Your task to perform on an android device: find snoozed emails in the gmail app Image 0: 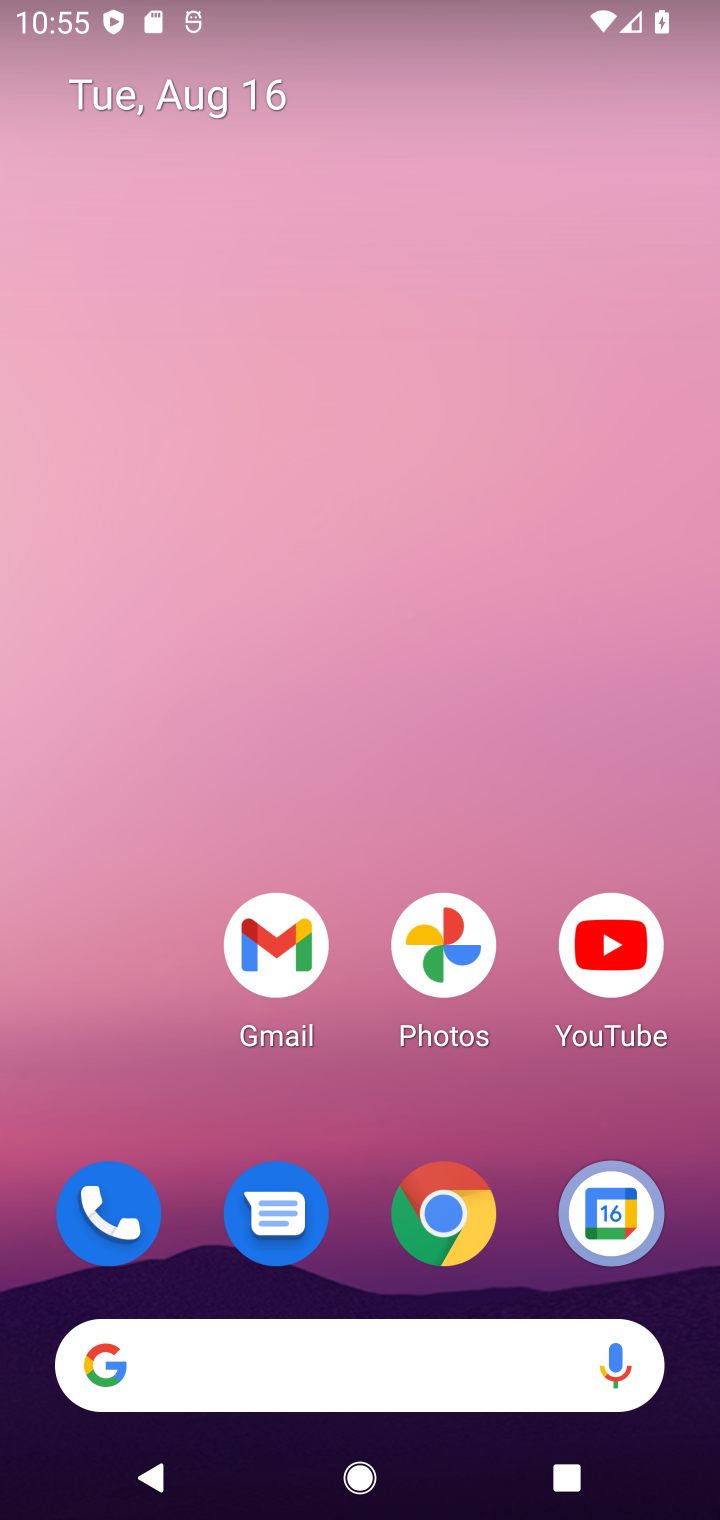
Step 0: press home button
Your task to perform on an android device: find snoozed emails in the gmail app Image 1: 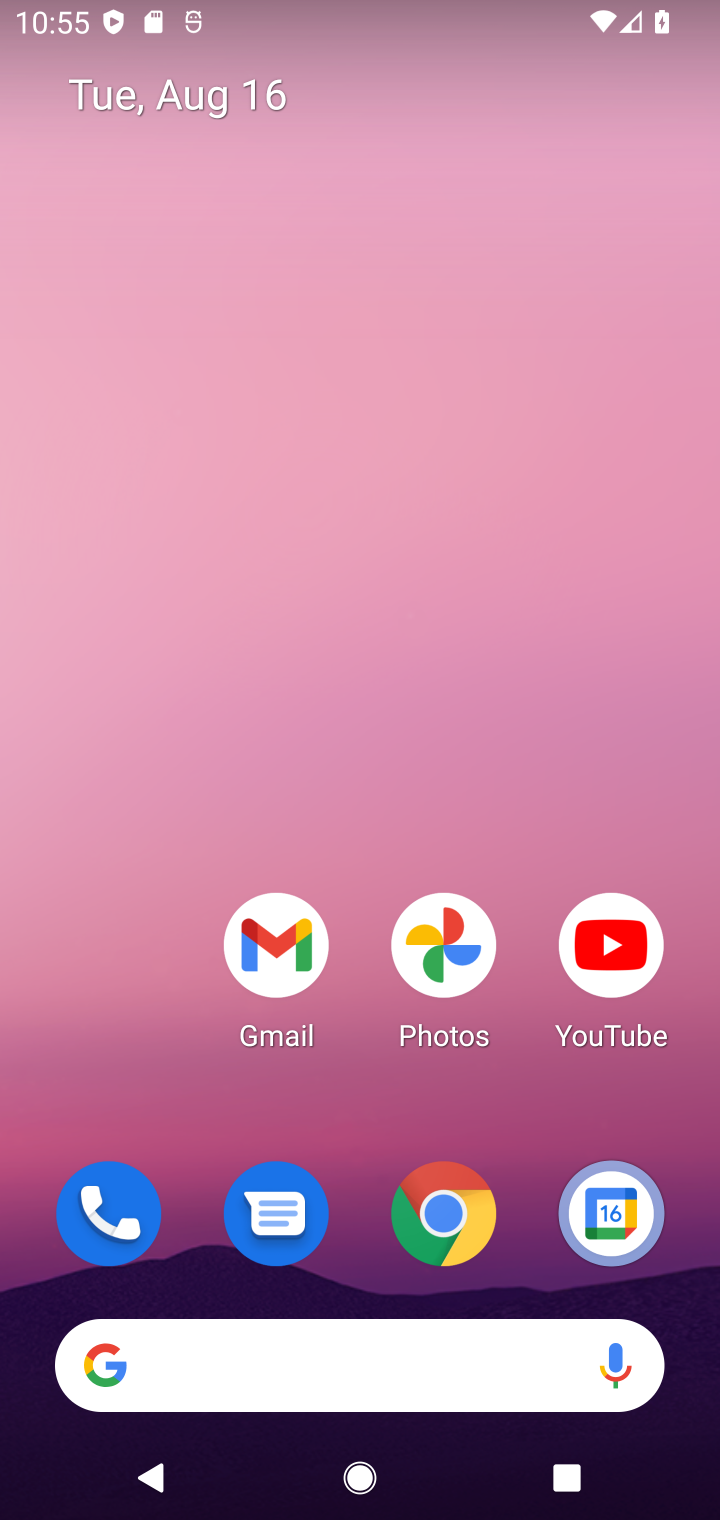
Step 1: press home button
Your task to perform on an android device: find snoozed emails in the gmail app Image 2: 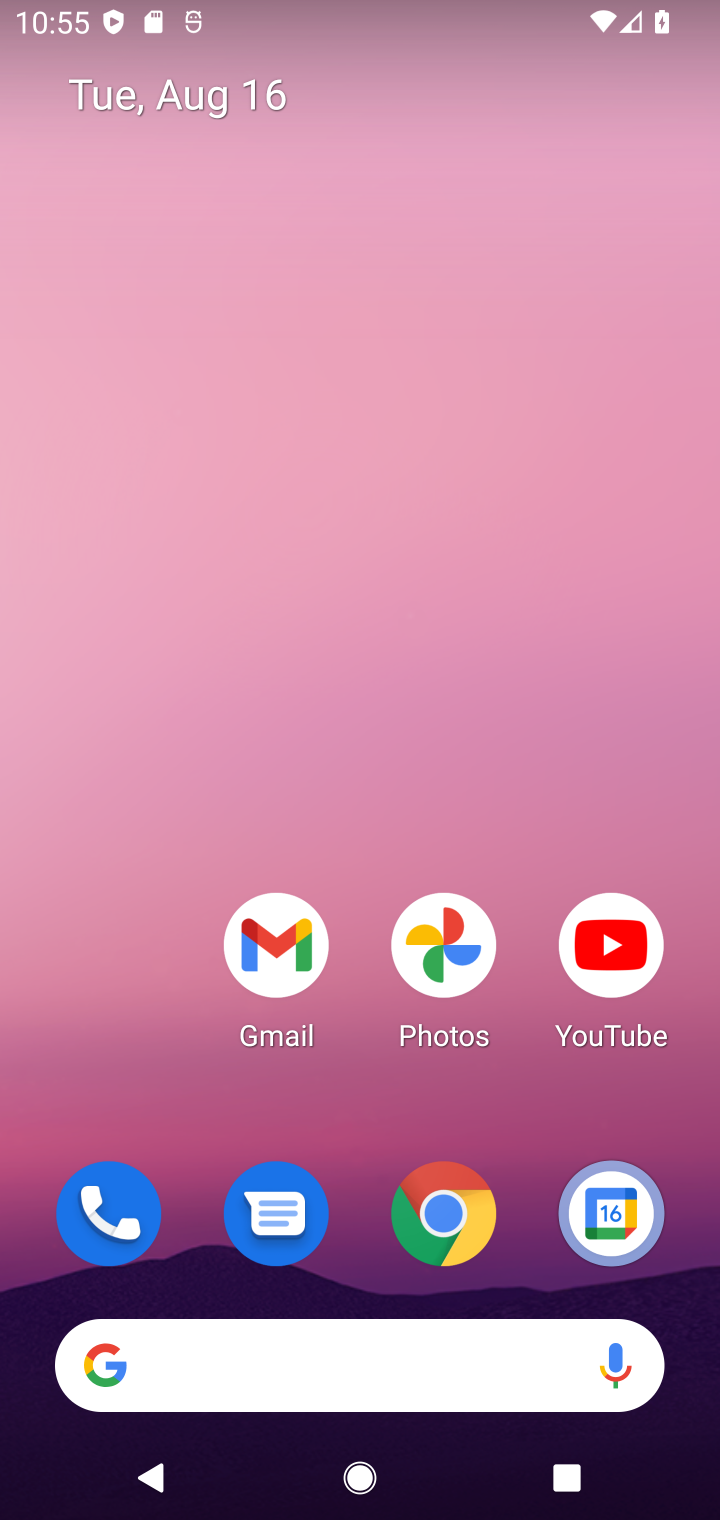
Step 2: drag from (352, 1125) to (385, 323)
Your task to perform on an android device: find snoozed emails in the gmail app Image 3: 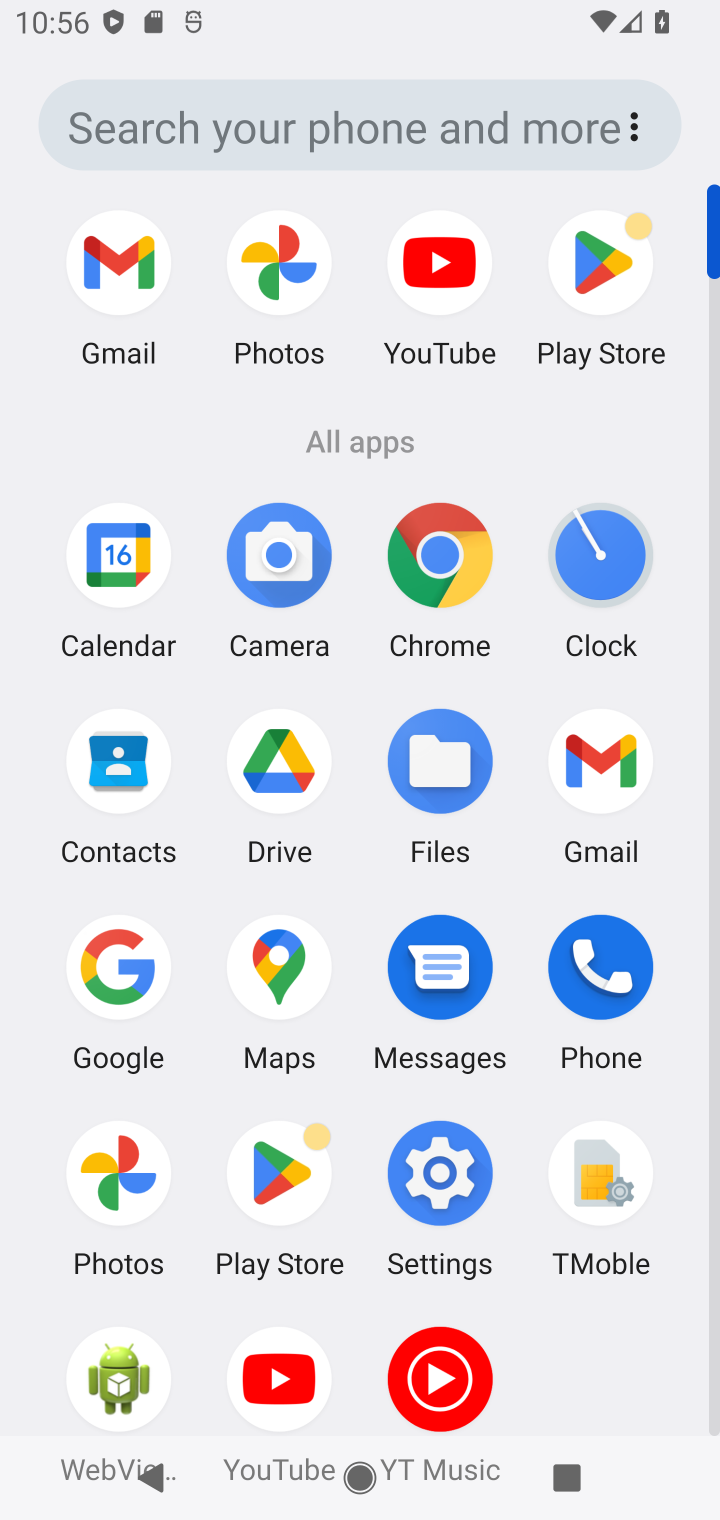
Step 3: click (606, 780)
Your task to perform on an android device: find snoozed emails in the gmail app Image 4: 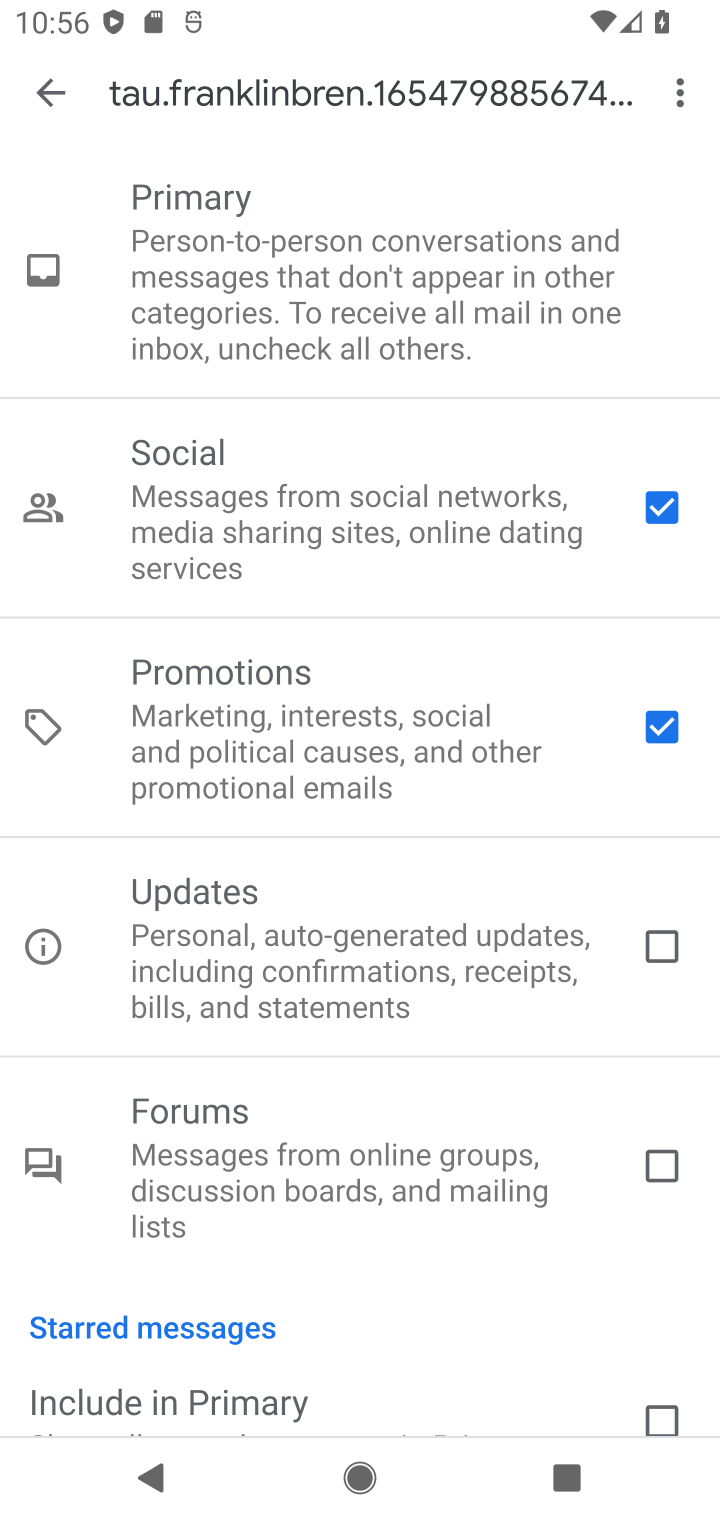
Step 4: click (61, 84)
Your task to perform on an android device: find snoozed emails in the gmail app Image 5: 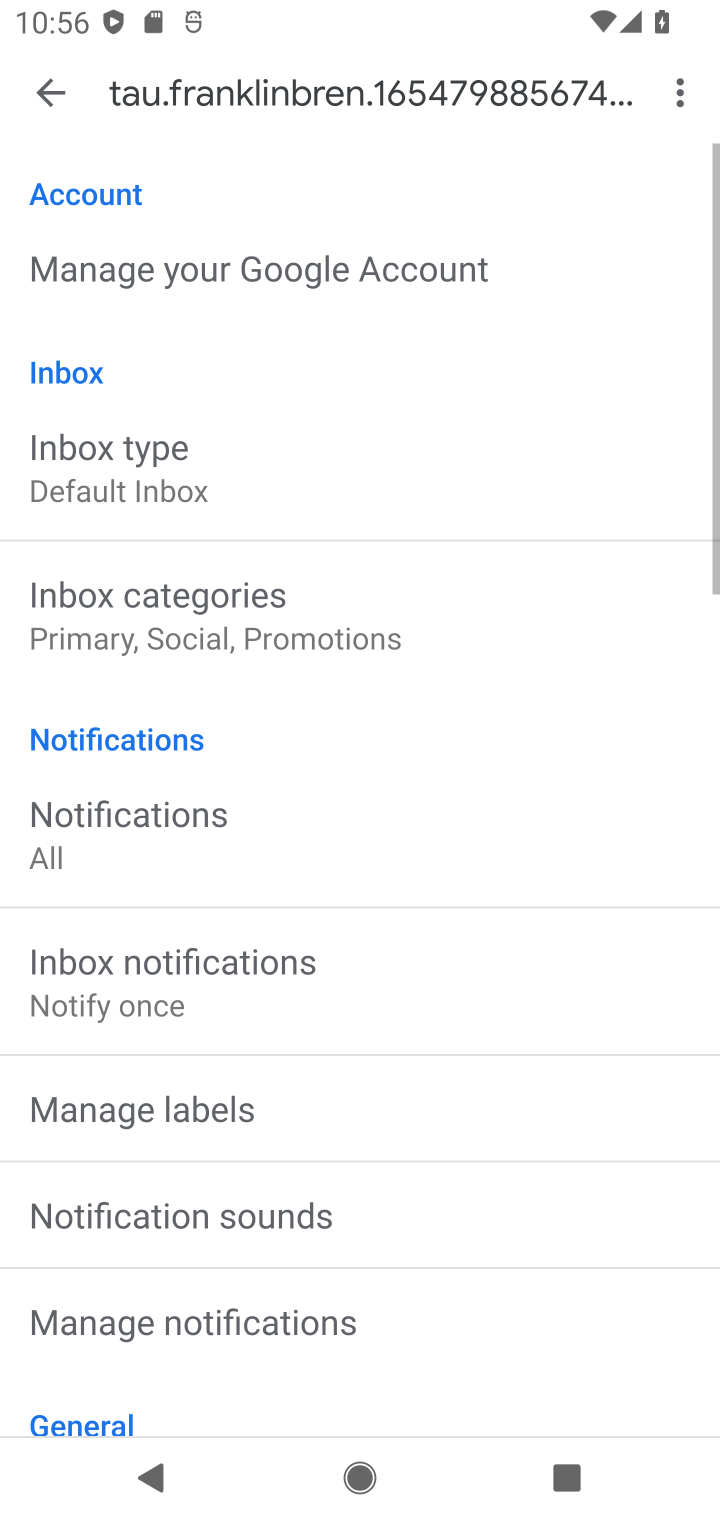
Step 5: click (61, 84)
Your task to perform on an android device: find snoozed emails in the gmail app Image 6: 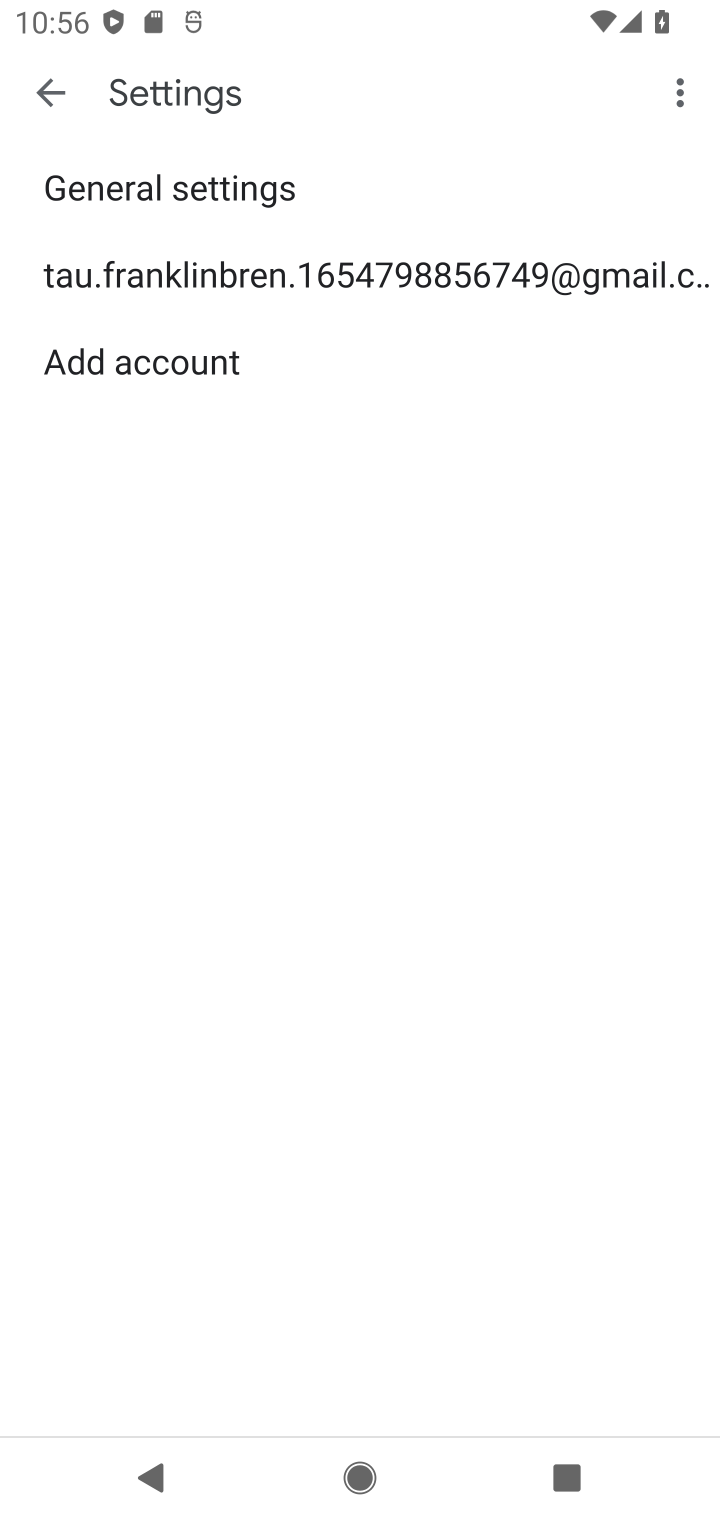
Step 6: click (61, 84)
Your task to perform on an android device: find snoozed emails in the gmail app Image 7: 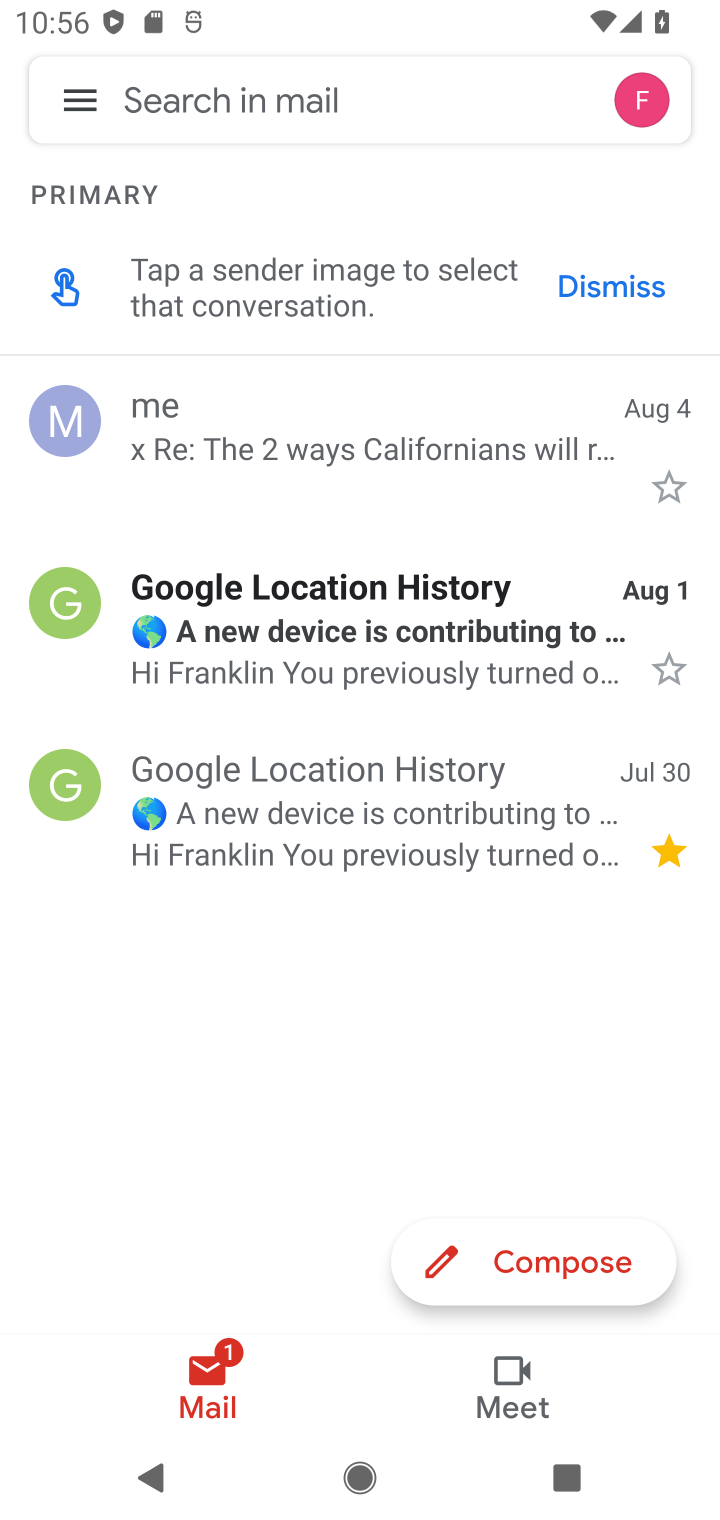
Step 7: click (86, 105)
Your task to perform on an android device: find snoozed emails in the gmail app Image 8: 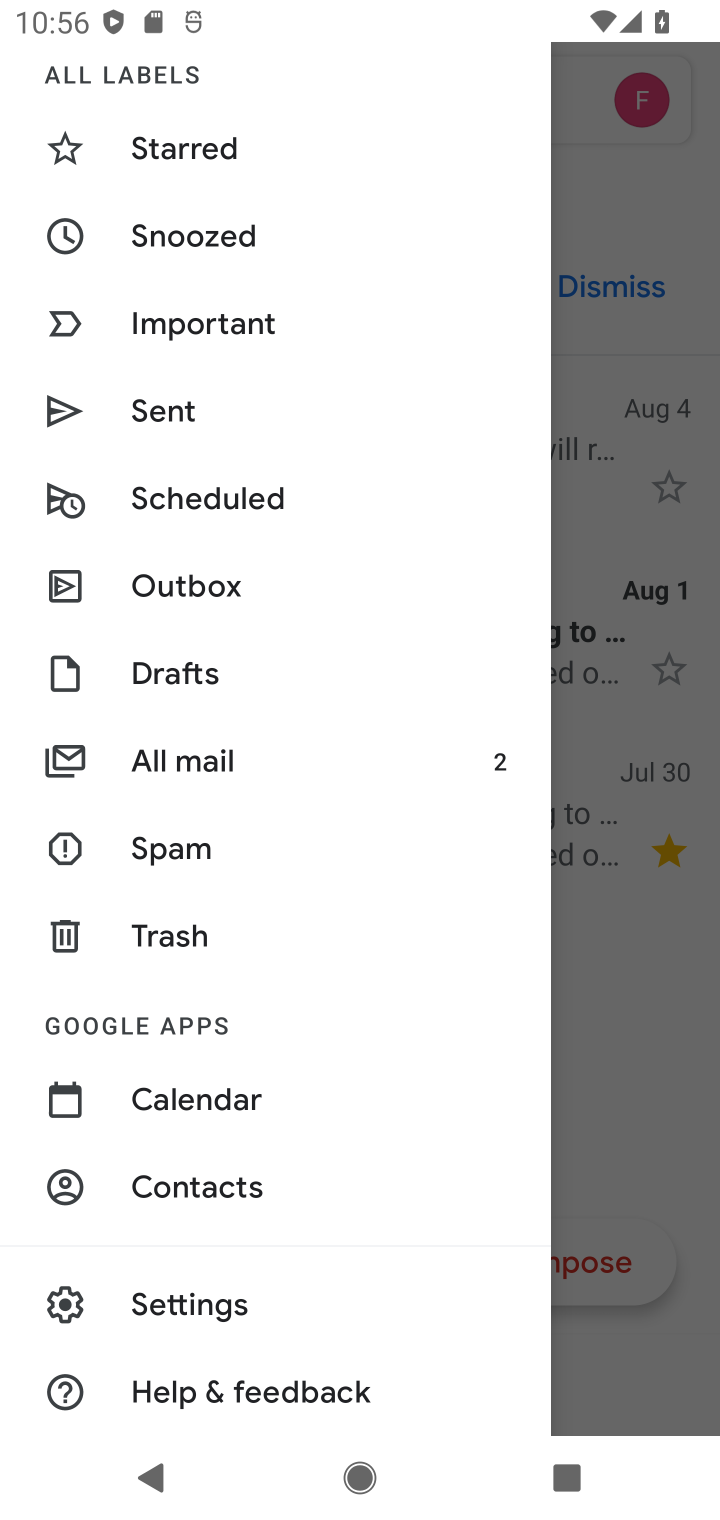
Step 8: drag from (216, 425) to (123, 1083)
Your task to perform on an android device: find snoozed emails in the gmail app Image 9: 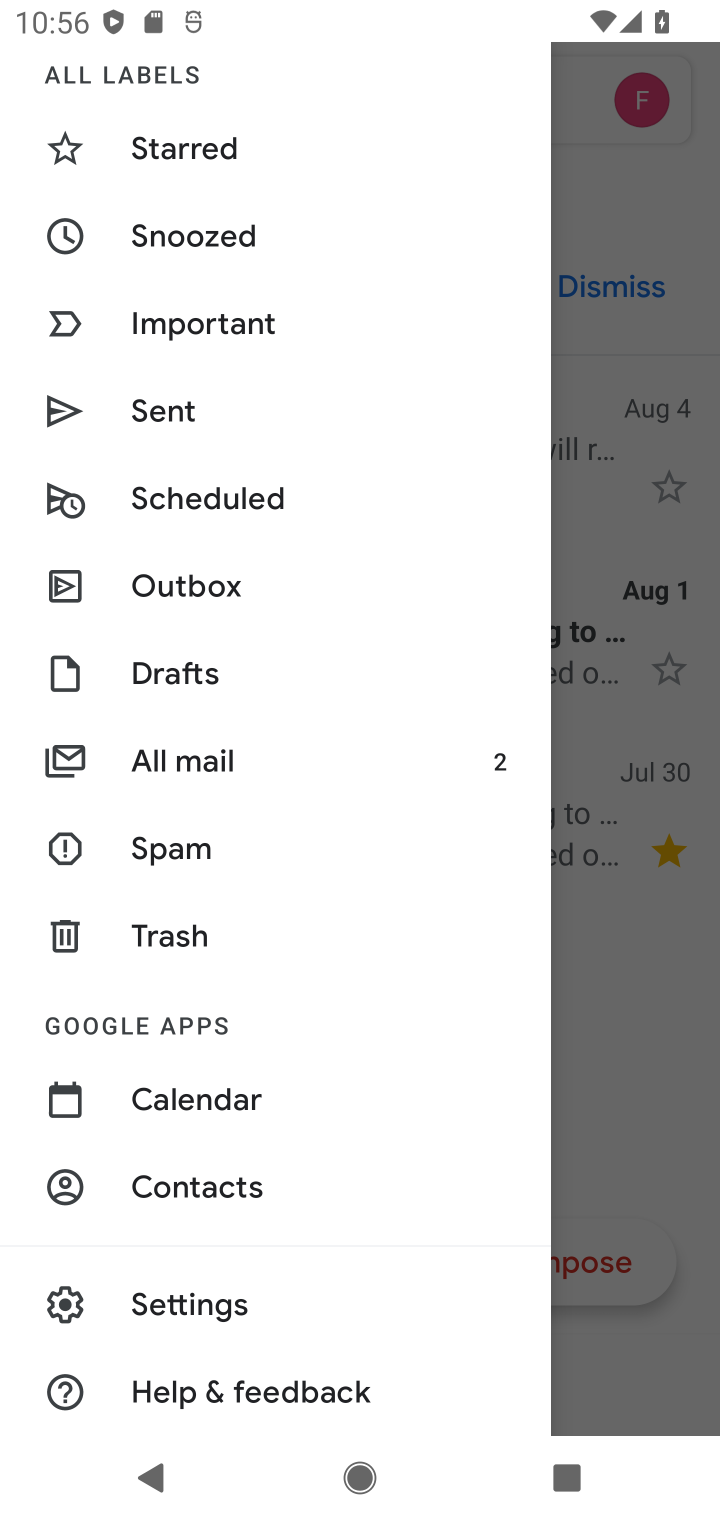
Step 9: click (167, 153)
Your task to perform on an android device: find snoozed emails in the gmail app Image 10: 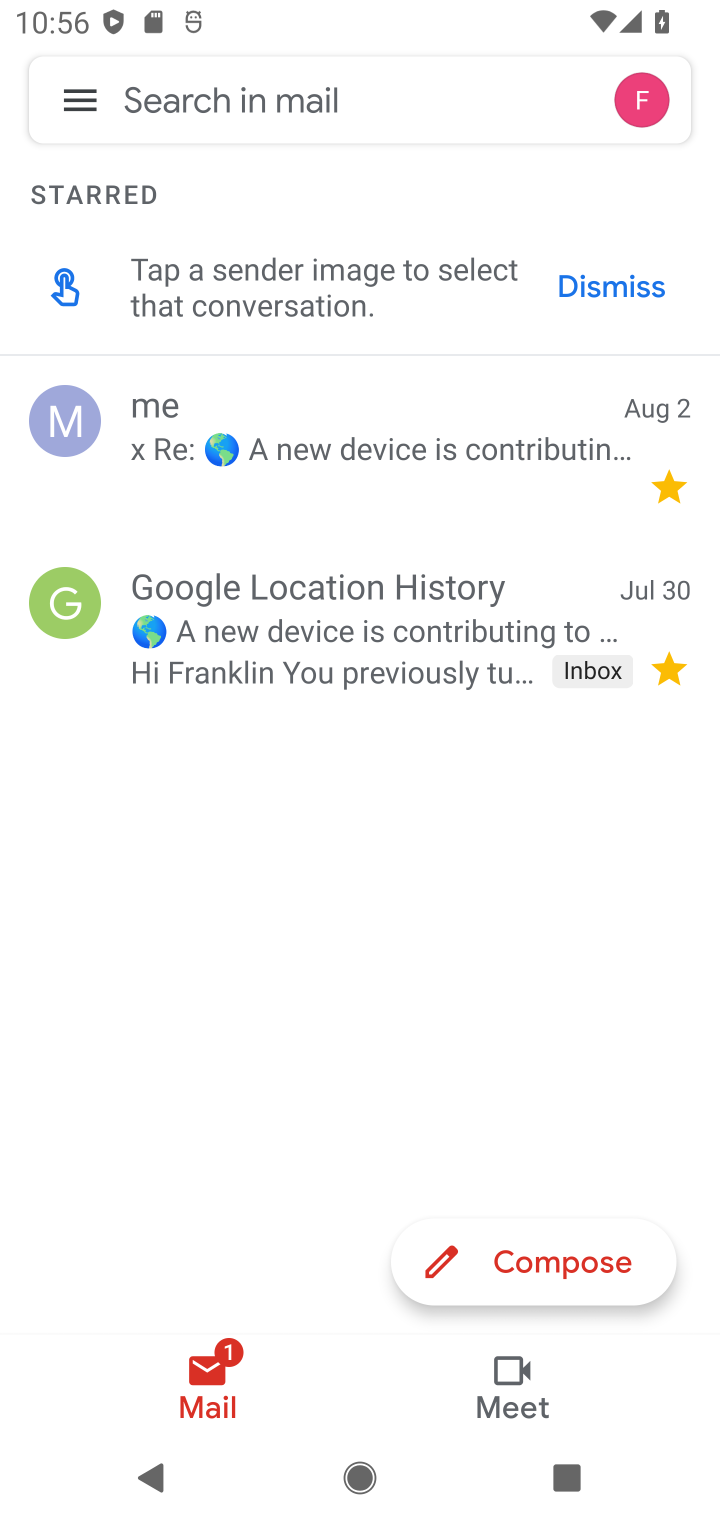
Step 10: task complete